Your task to perform on an android device: Go to calendar. Show me events next week Image 0: 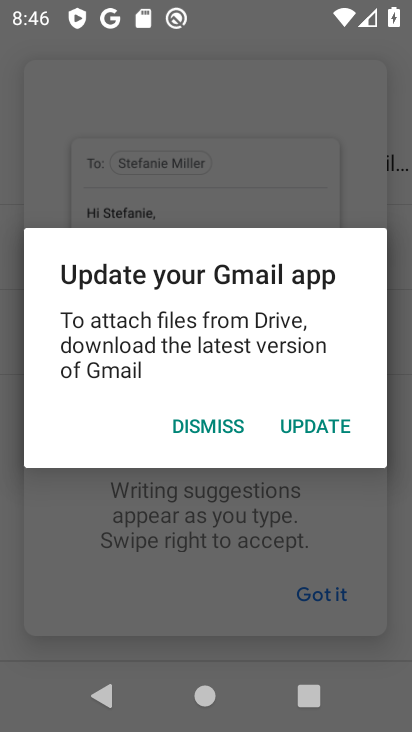
Step 0: press back button
Your task to perform on an android device: Go to calendar. Show me events next week Image 1: 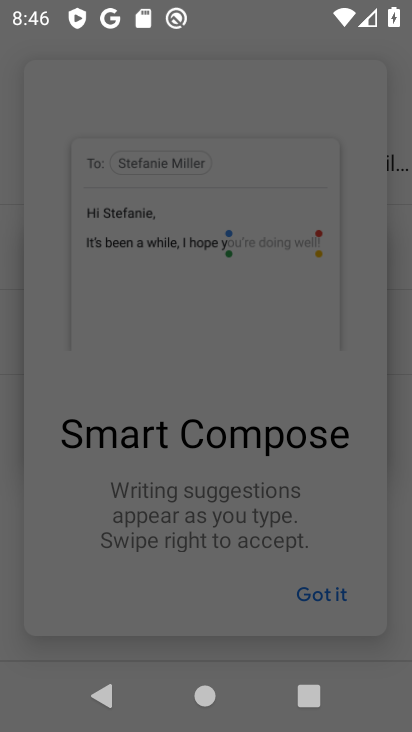
Step 1: press back button
Your task to perform on an android device: Go to calendar. Show me events next week Image 2: 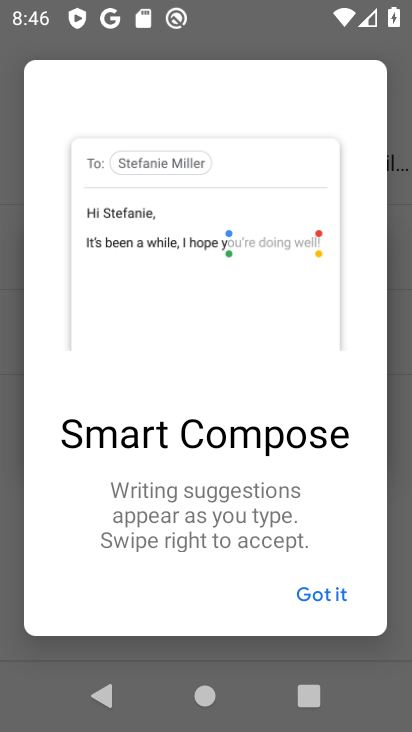
Step 2: press back button
Your task to perform on an android device: Go to calendar. Show me events next week Image 3: 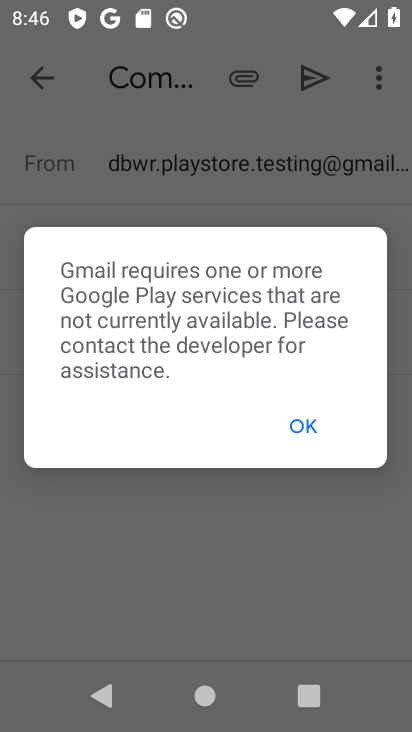
Step 3: press back button
Your task to perform on an android device: Go to calendar. Show me events next week Image 4: 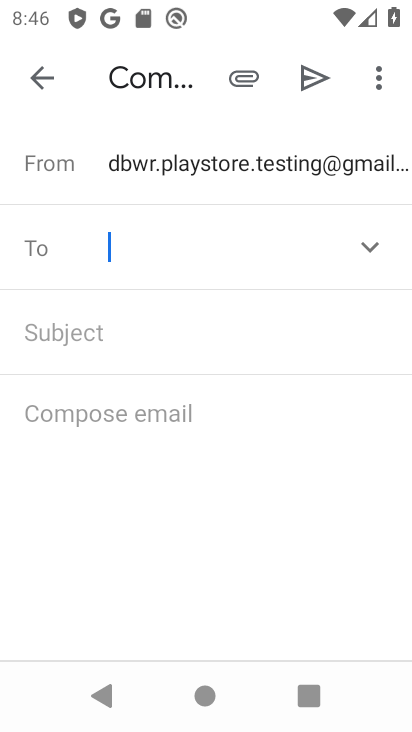
Step 4: press back button
Your task to perform on an android device: Go to calendar. Show me events next week Image 5: 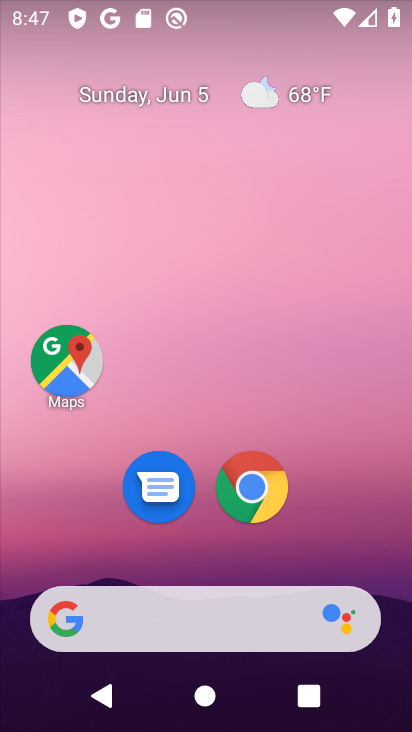
Step 5: drag from (127, 548) to (225, 165)
Your task to perform on an android device: Go to calendar. Show me events next week Image 6: 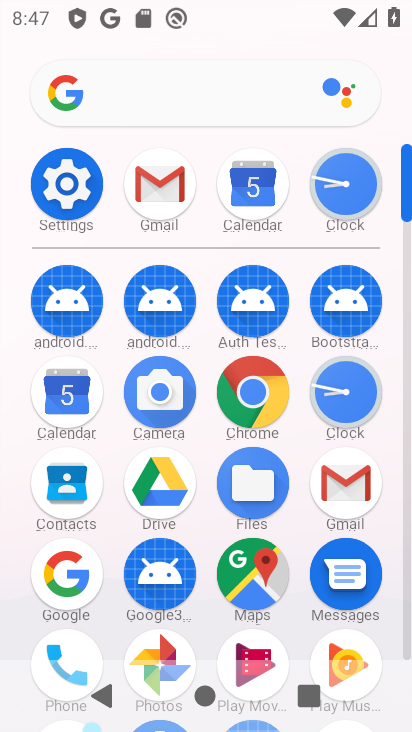
Step 6: click (73, 396)
Your task to perform on an android device: Go to calendar. Show me events next week Image 7: 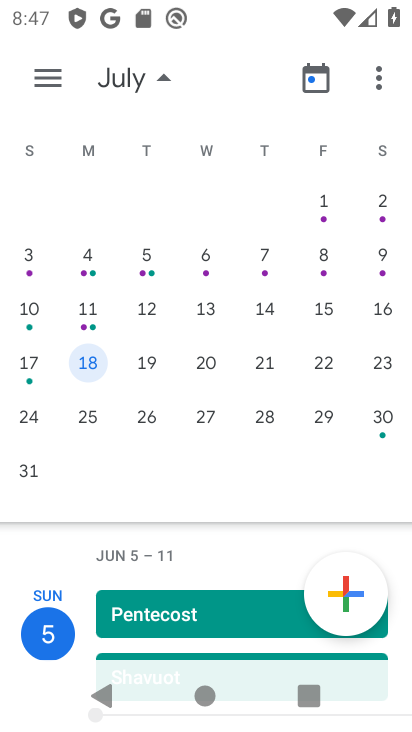
Step 7: drag from (59, 322) to (378, 305)
Your task to perform on an android device: Go to calendar. Show me events next week Image 8: 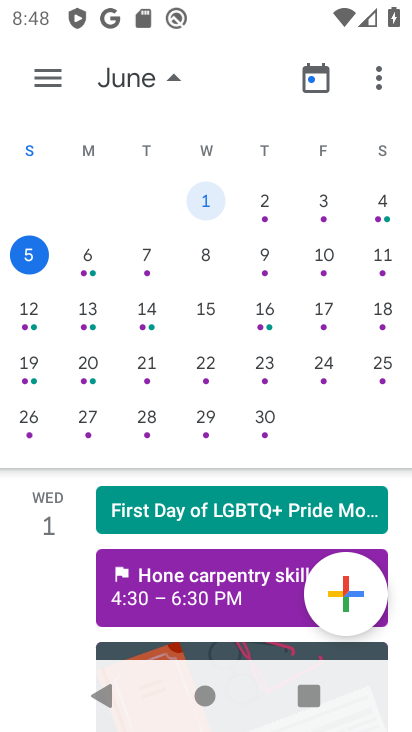
Step 8: click (84, 314)
Your task to perform on an android device: Go to calendar. Show me events next week Image 9: 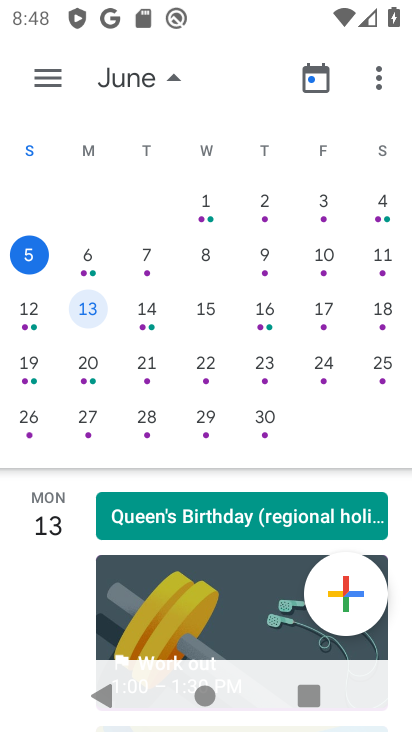
Step 9: drag from (169, 600) to (268, 246)
Your task to perform on an android device: Go to calendar. Show me events next week Image 10: 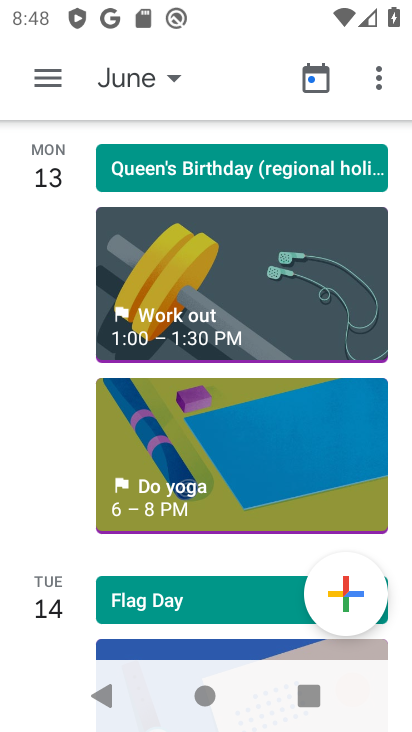
Step 10: click (169, 167)
Your task to perform on an android device: Go to calendar. Show me events next week Image 11: 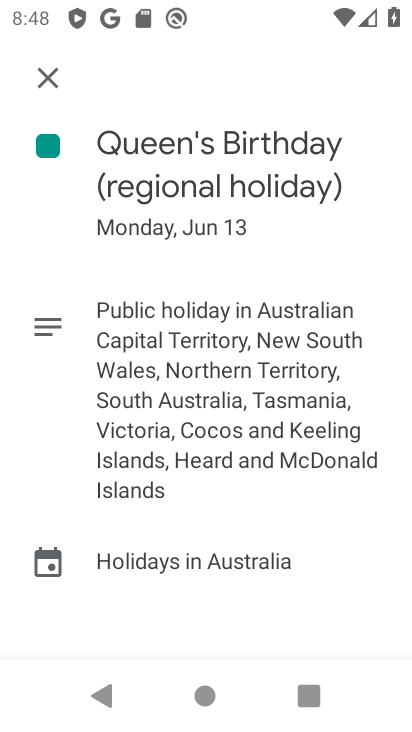
Step 11: task complete